Your task to perform on an android device: Go to CNN.com Image 0: 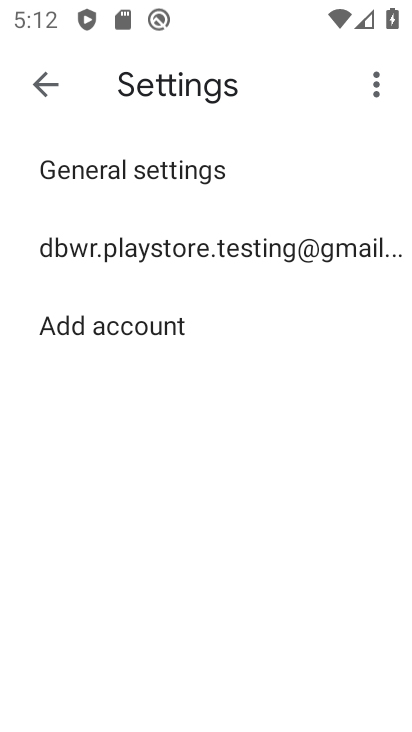
Step 0: press back button
Your task to perform on an android device: Go to CNN.com Image 1: 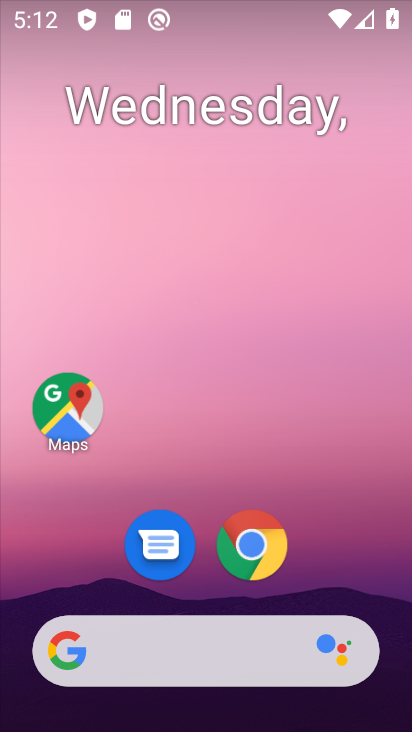
Step 1: click (254, 537)
Your task to perform on an android device: Go to CNN.com Image 2: 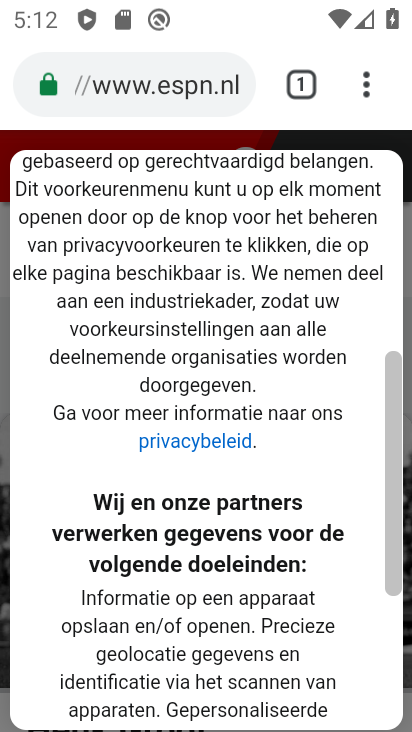
Step 2: click (294, 84)
Your task to perform on an android device: Go to CNN.com Image 3: 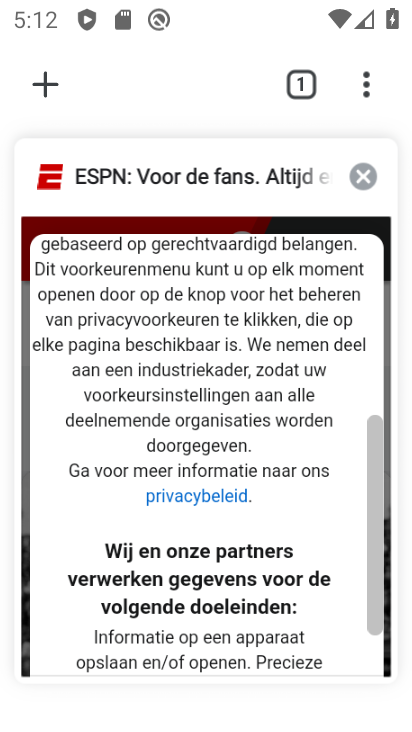
Step 3: click (35, 79)
Your task to perform on an android device: Go to CNN.com Image 4: 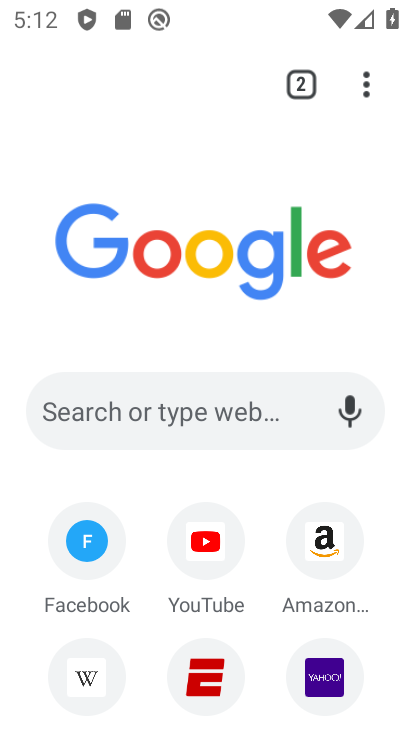
Step 4: drag from (201, 623) to (215, 698)
Your task to perform on an android device: Go to CNN.com Image 5: 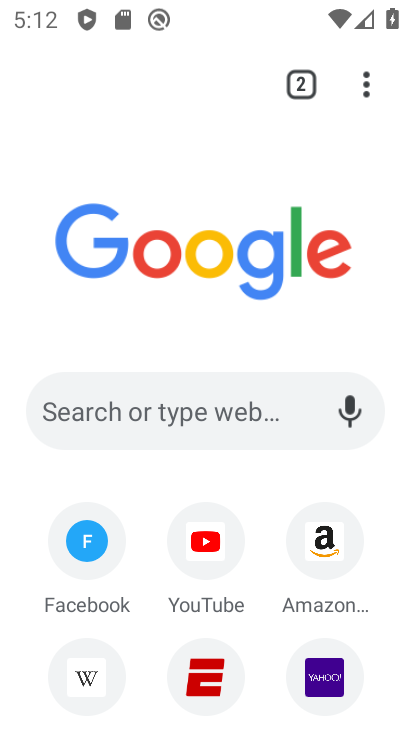
Step 5: click (115, 400)
Your task to perform on an android device: Go to CNN.com Image 6: 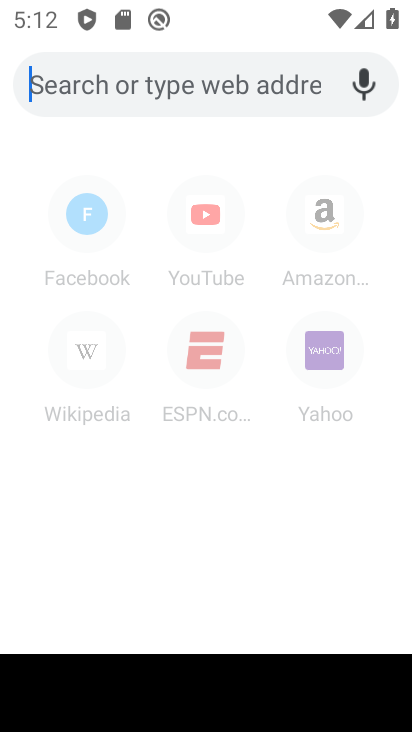
Step 6: type "cnn.com"
Your task to perform on an android device: Go to CNN.com Image 7: 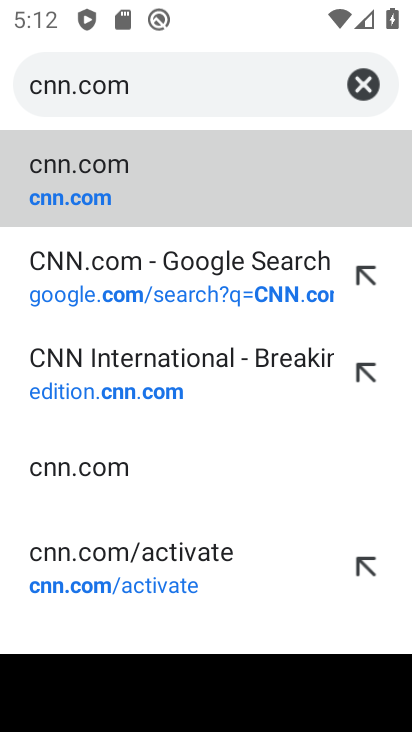
Step 7: click (130, 184)
Your task to perform on an android device: Go to CNN.com Image 8: 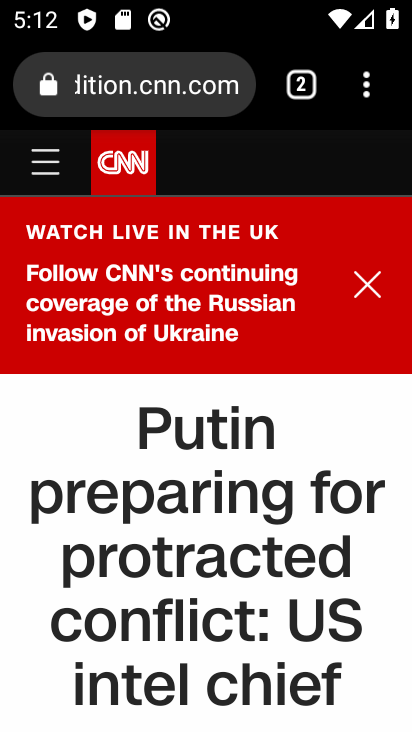
Step 8: task complete